Your task to perform on an android device: Show me popular videos on Youtube Image 0: 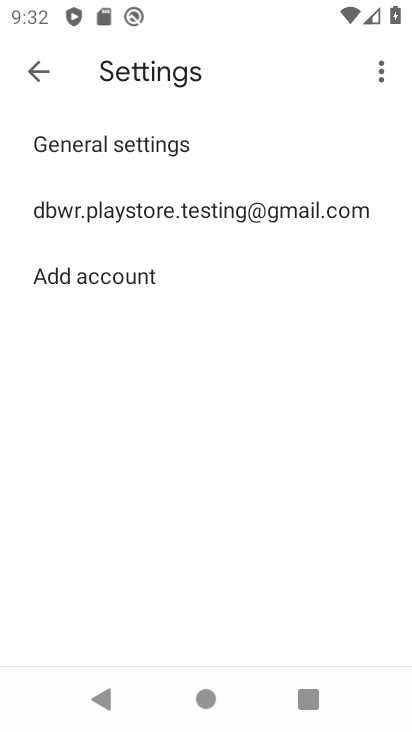
Step 0: press home button
Your task to perform on an android device: Show me popular videos on Youtube Image 1: 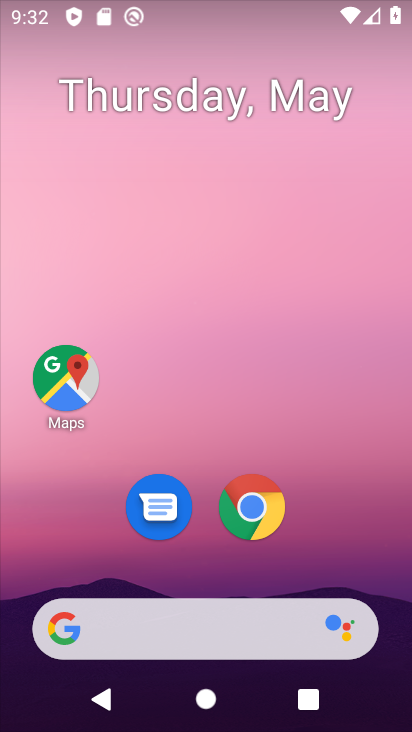
Step 1: drag from (341, 566) to (299, 122)
Your task to perform on an android device: Show me popular videos on Youtube Image 2: 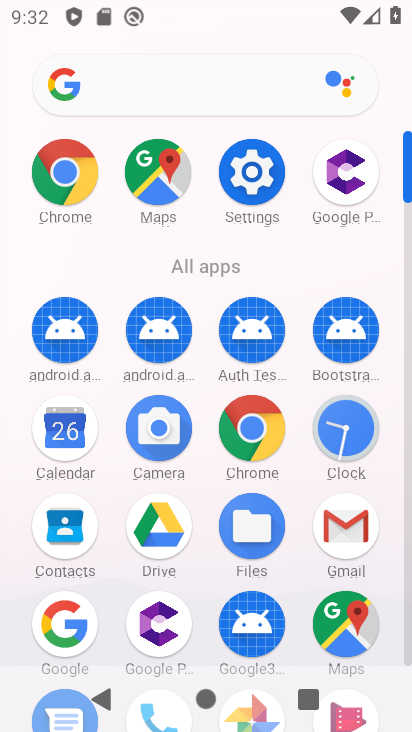
Step 2: click (406, 653)
Your task to perform on an android device: Show me popular videos on Youtube Image 3: 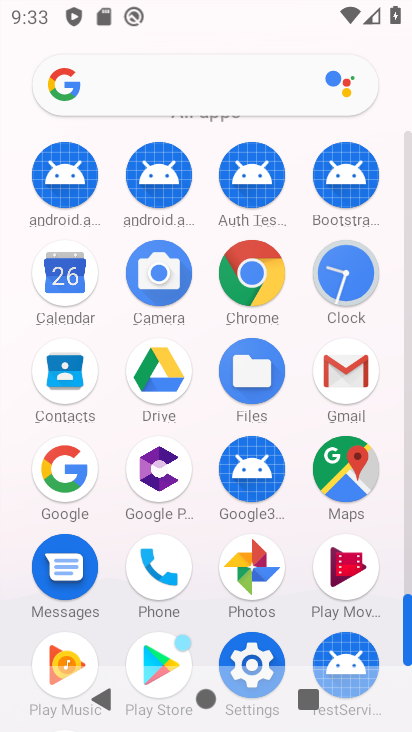
Step 3: drag from (393, 582) to (388, 385)
Your task to perform on an android device: Show me popular videos on Youtube Image 4: 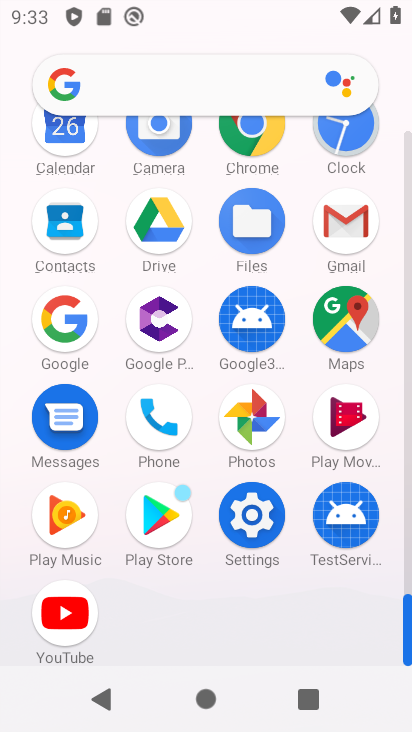
Step 4: click (70, 633)
Your task to perform on an android device: Show me popular videos on Youtube Image 5: 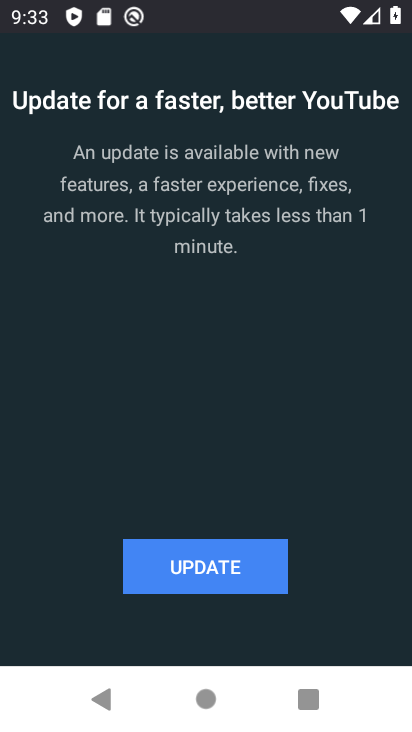
Step 5: click (171, 581)
Your task to perform on an android device: Show me popular videos on Youtube Image 6: 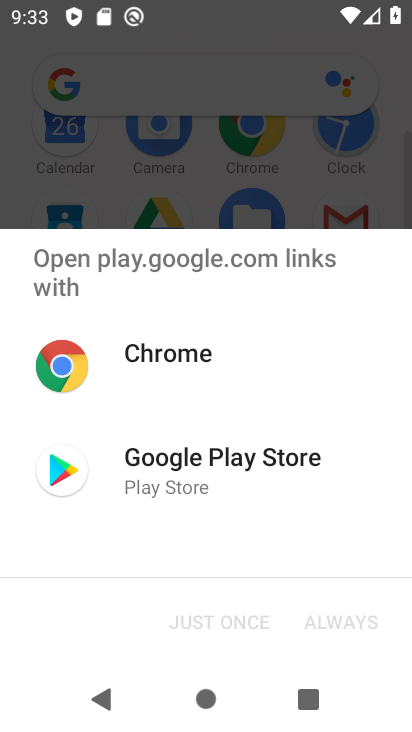
Step 6: click (261, 453)
Your task to perform on an android device: Show me popular videos on Youtube Image 7: 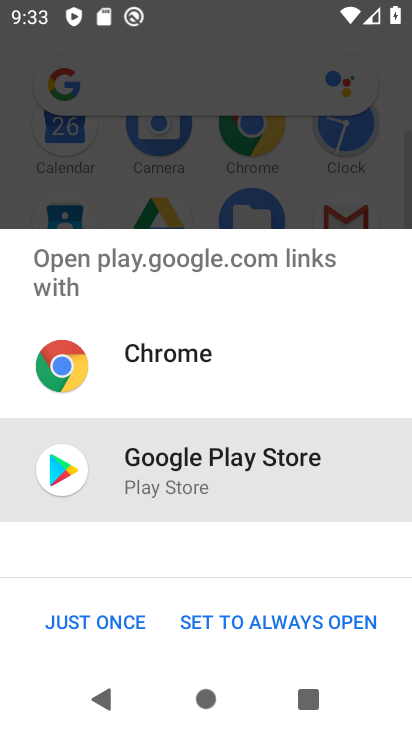
Step 7: click (123, 625)
Your task to perform on an android device: Show me popular videos on Youtube Image 8: 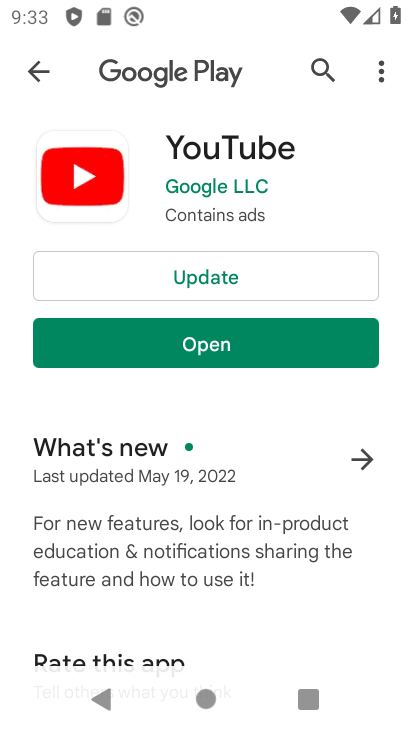
Step 8: click (236, 278)
Your task to perform on an android device: Show me popular videos on Youtube Image 9: 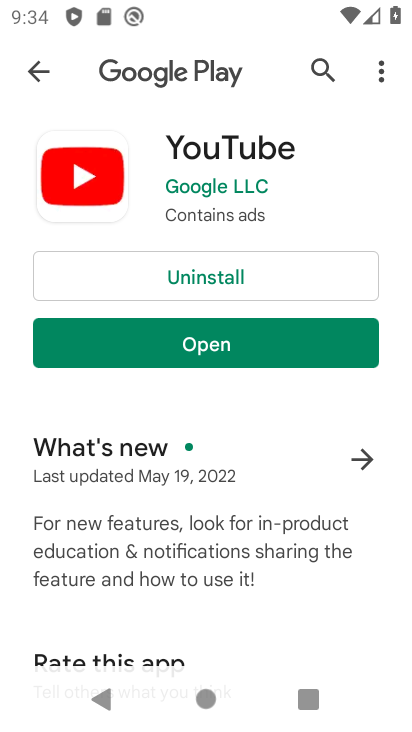
Step 9: click (313, 354)
Your task to perform on an android device: Show me popular videos on Youtube Image 10: 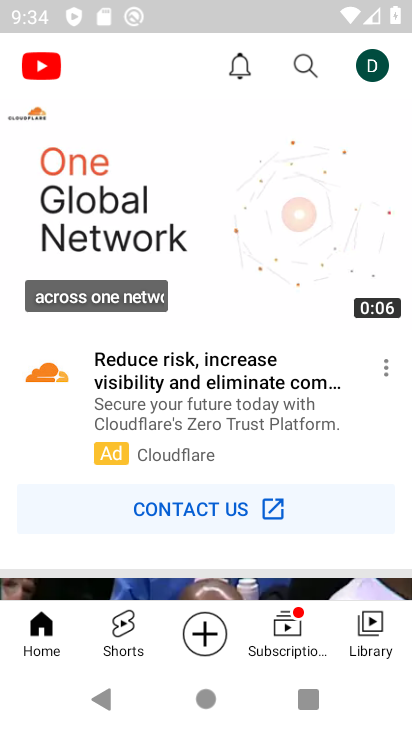
Step 10: drag from (355, 561) to (294, 187)
Your task to perform on an android device: Show me popular videos on Youtube Image 11: 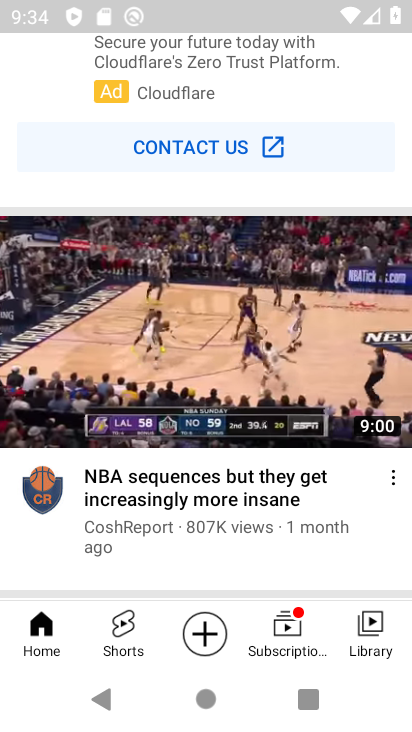
Step 11: drag from (305, 579) to (245, 148)
Your task to perform on an android device: Show me popular videos on Youtube Image 12: 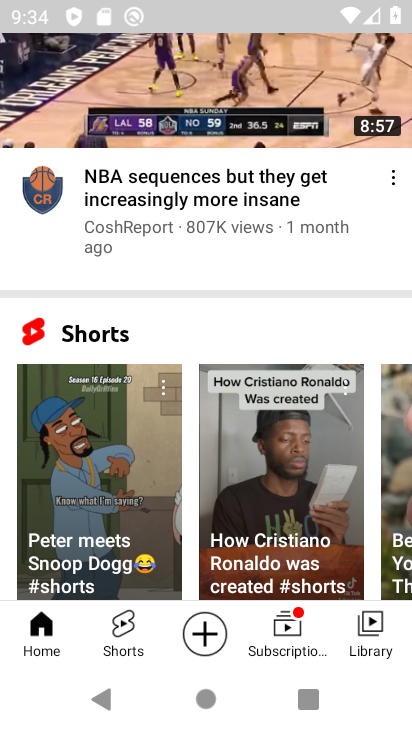
Step 12: drag from (236, 322) to (225, 44)
Your task to perform on an android device: Show me popular videos on Youtube Image 13: 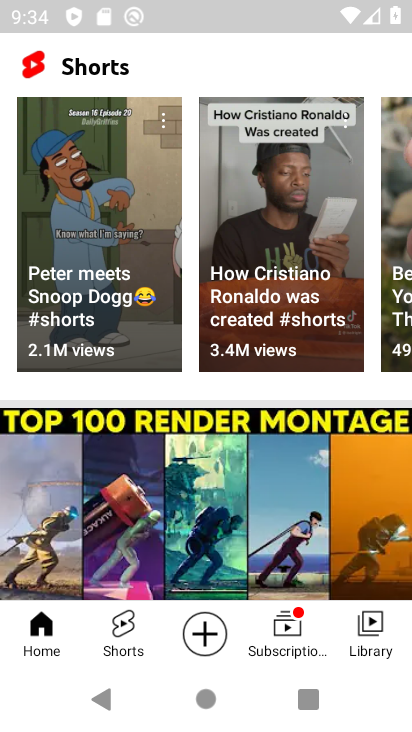
Step 13: click (369, 629)
Your task to perform on an android device: Show me popular videos on Youtube Image 14: 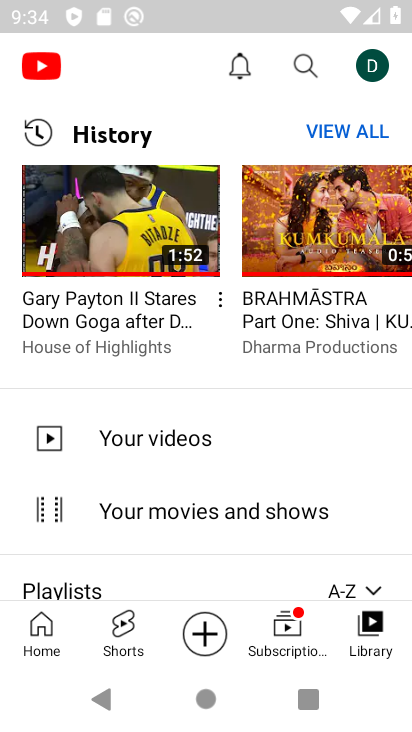
Step 14: drag from (288, 542) to (220, 198)
Your task to perform on an android device: Show me popular videos on Youtube Image 15: 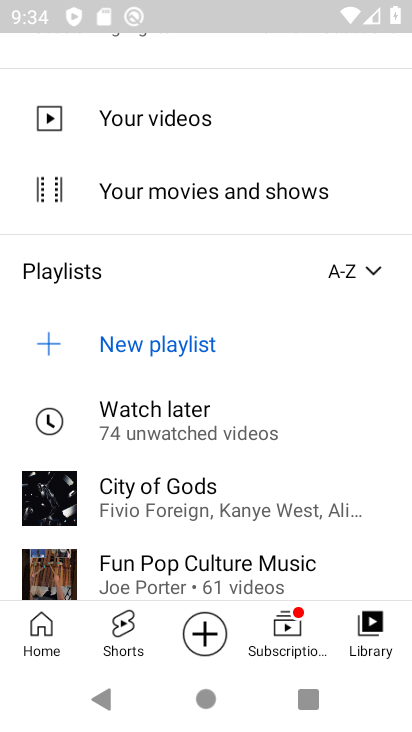
Step 15: click (277, 645)
Your task to perform on an android device: Show me popular videos on Youtube Image 16: 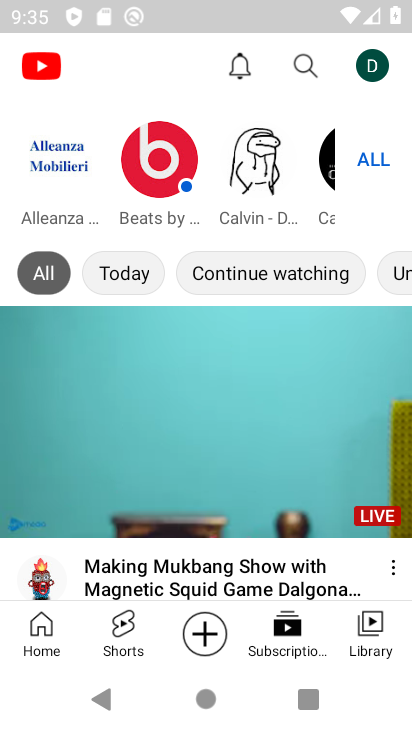
Step 16: task complete